Your task to perform on an android device: all mails in gmail Image 0: 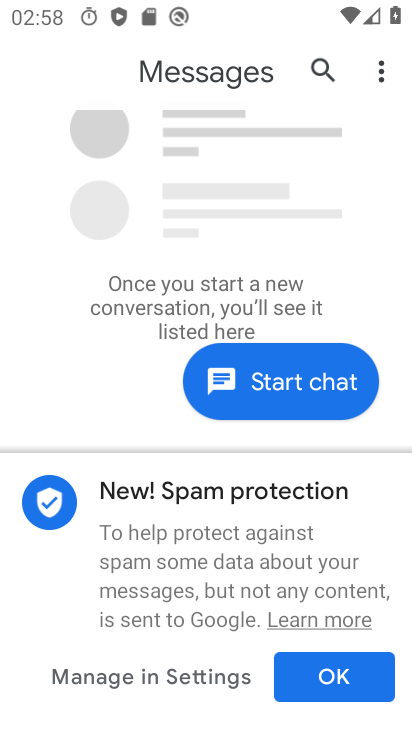
Step 0: press home button
Your task to perform on an android device: all mails in gmail Image 1: 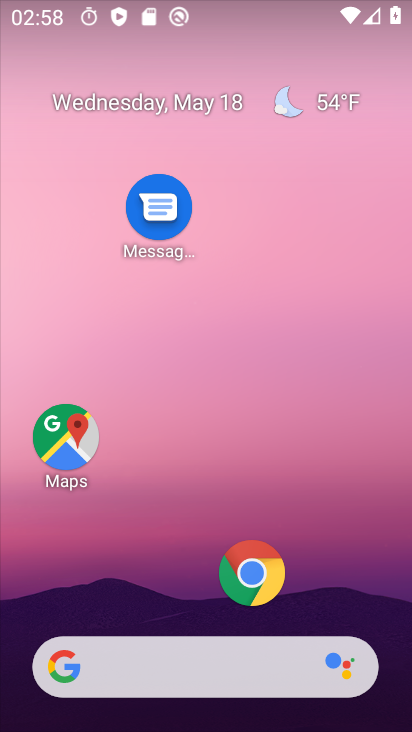
Step 1: drag from (198, 599) to (227, 244)
Your task to perform on an android device: all mails in gmail Image 2: 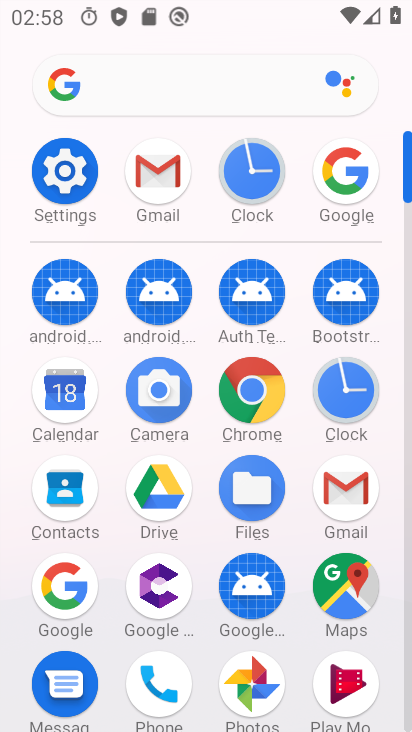
Step 2: click (168, 188)
Your task to perform on an android device: all mails in gmail Image 3: 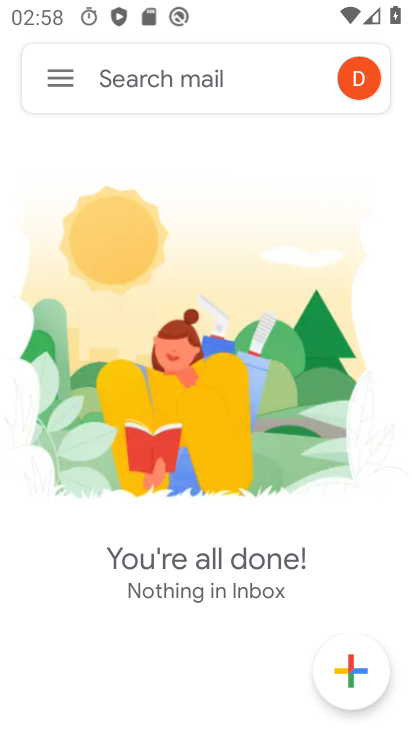
Step 3: click (66, 88)
Your task to perform on an android device: all mails in gmail Image 4: 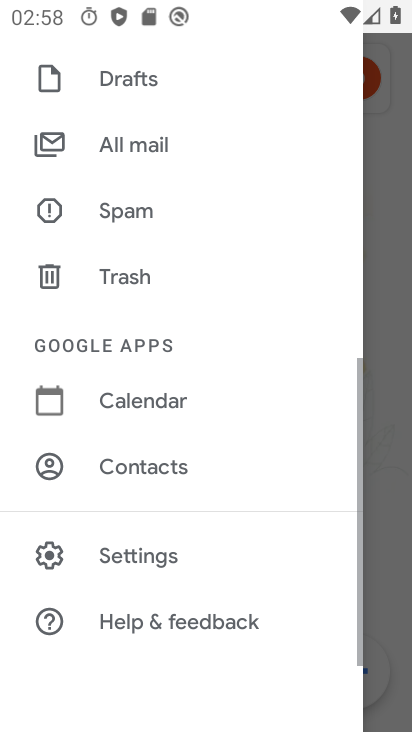
Step 4: click (134, 153)
Your task to perform on an android device: all mails in gmail Image 5: 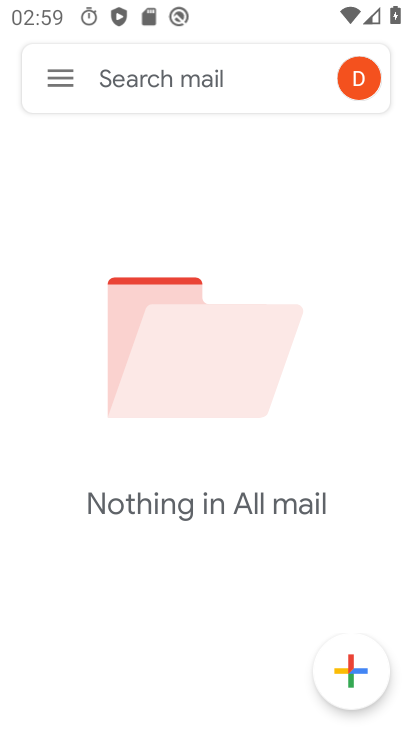
Step 5: task complete